Your task to perform on an android device: change the upload size in google photos Image 0: 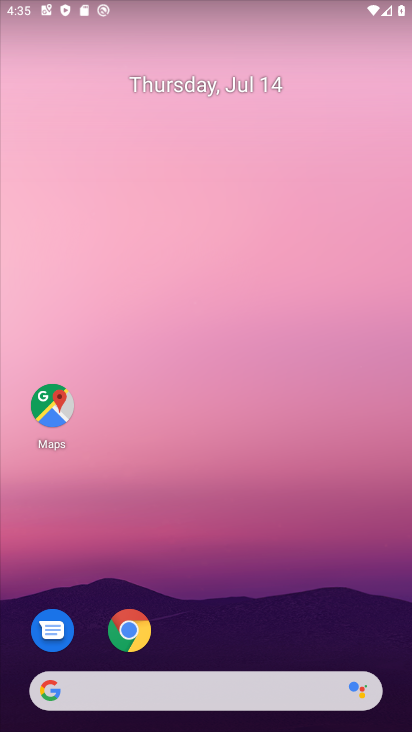
Step 0: drag from (184, 703) to (354, 26)
Your task to perform on an android device: change the upload size in google photos Image 1: 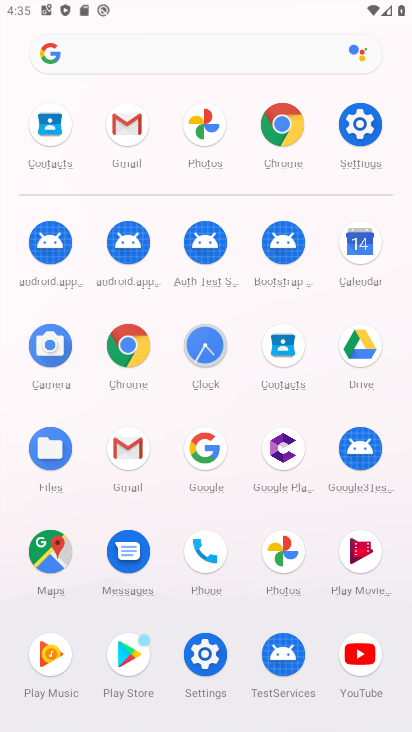
Step 1: click (275, 556)
Your task to perform on an android device: change the upload size in google photos Image 2: 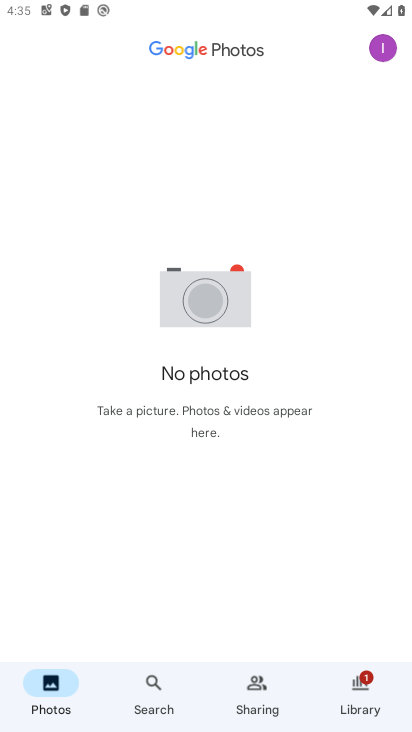
Step 2: click (374, 44)
Your task to perform on an android device: change the upload size in google photos Image 3: 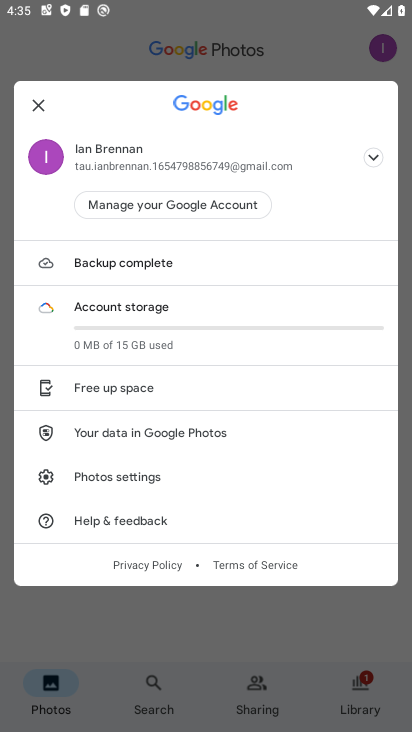
Step 3: click (129, 476)
Your task to perform on an android device: change the upload size in google photos Image 4: 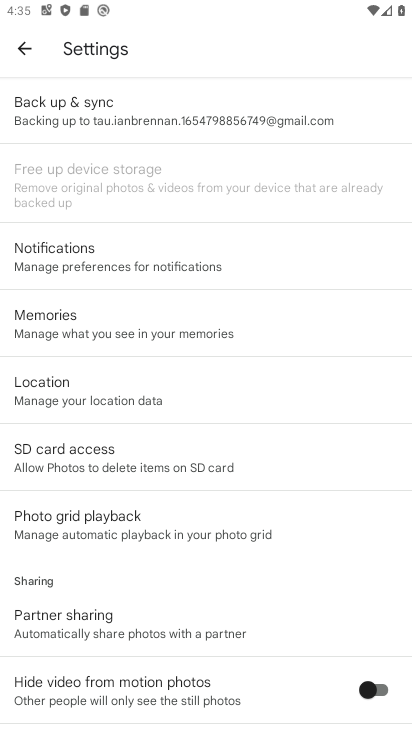
Step 4: click (192, 108)
Your task to perform on an android device: change the upload size in google photos Image 5: 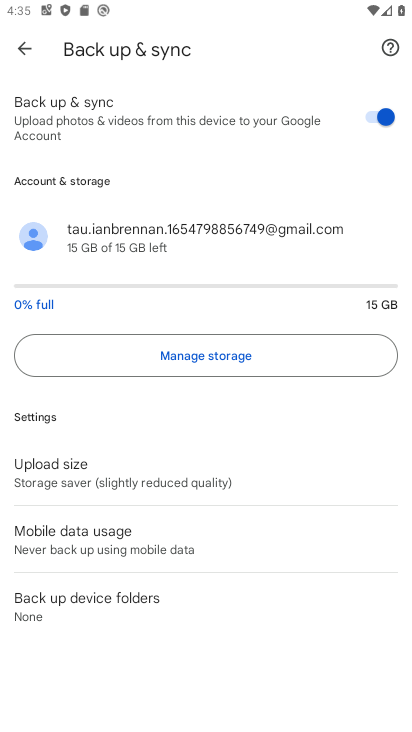
Step 5: click (140, 485)
Your task to perform on an android device: change the upload size in google photos Image 6: 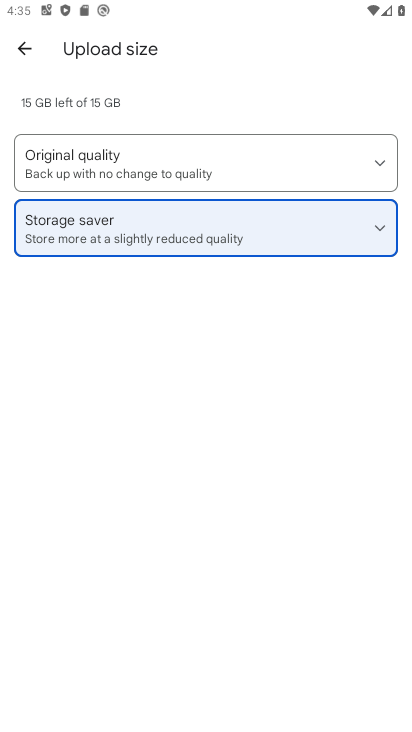
Step 6: click (120, 163)
Your task to perform on an android device: change the upload size in google photos Image 7: 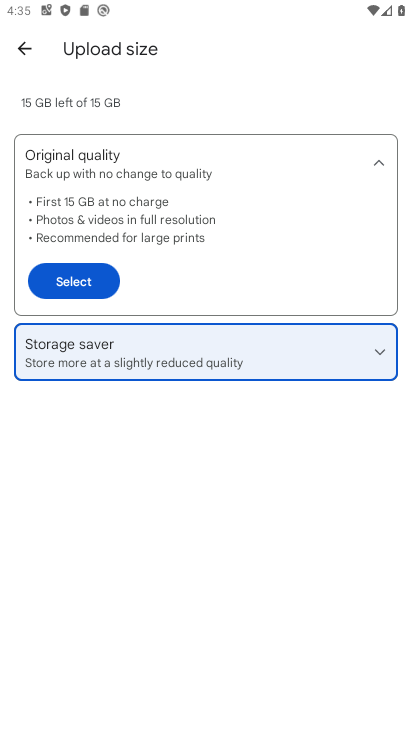
Step 7: click (84, 283)
Your task to perform on an android device: change the upload size in google photos Image 8: 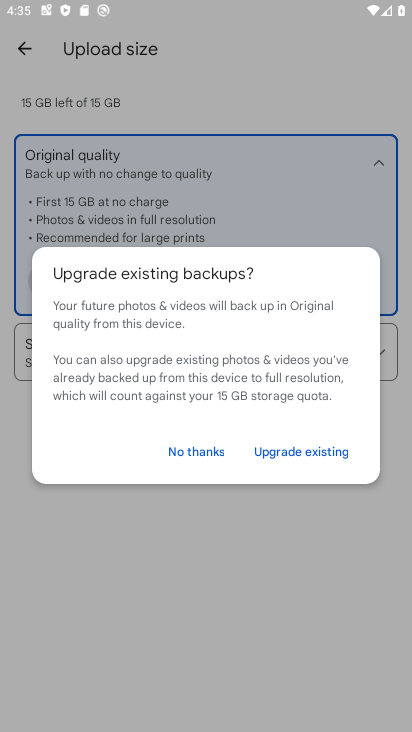
Step 8: click (288, 441)
Your task to perform on an android device: change the upload size in google photos Image 9: 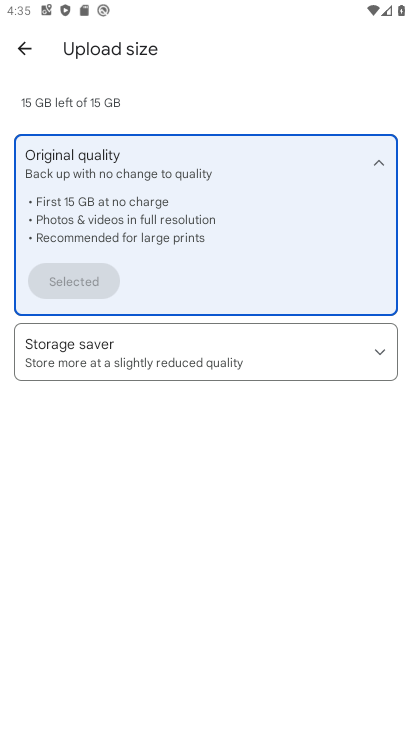
Step 9: task complete